Your task to perform on an android device: turn on the 24-hour format for clock Image 0: 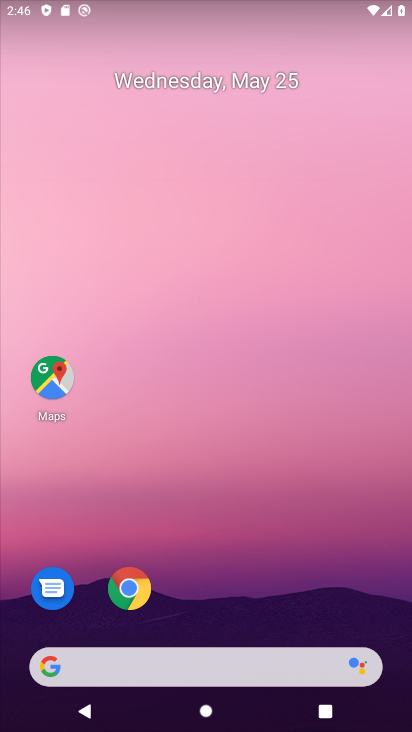
Step 0: press home button
Your task to perform on an android device: turn on the 24-hour format for clock Image 1: 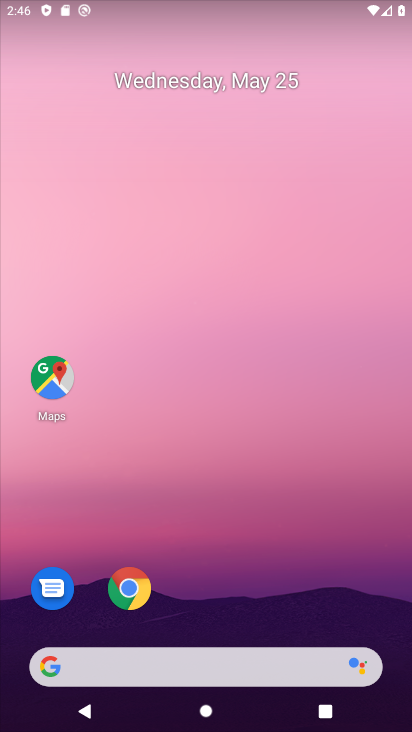
Step 1: drag from (235, 620) to (285, 6)
Your task to perform on an android device: turn on the 24-hour format for clock Image 2: 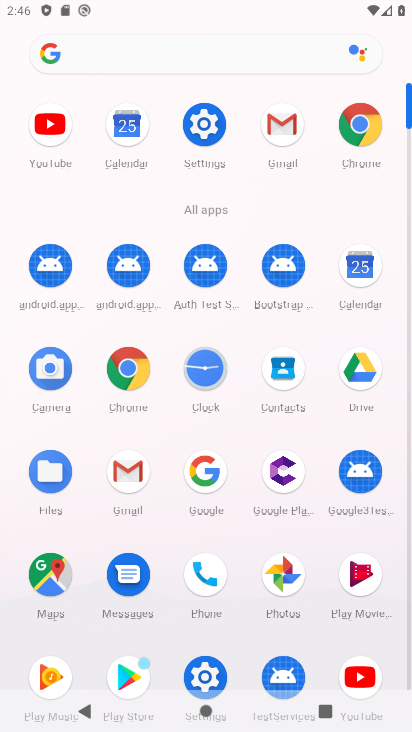
Step 2: click (198, 384)
Your task to perform on an android device: turn on the 24-hour format for clock Image 3: 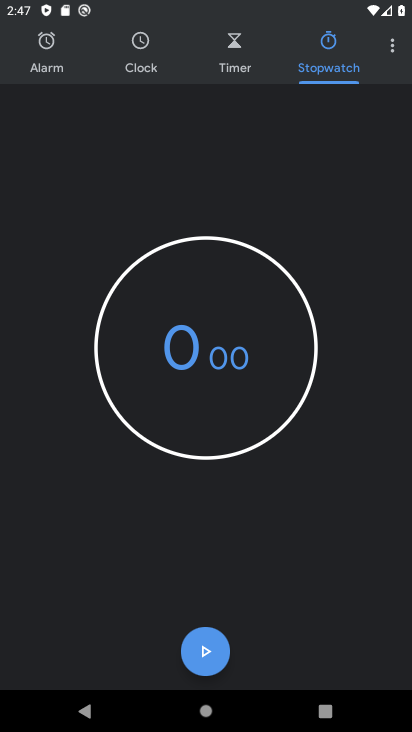
Step 3: click (393, 52)
Your task to perform on an android device: turn on the 24-hour format for clock Image 4: 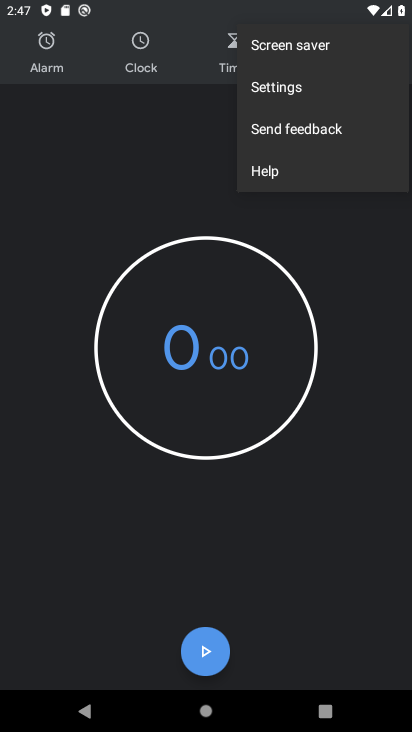
Step 4: click (281, 87)
Your task to perform on an android device: turn on the 24-hour format for clock Image 5: 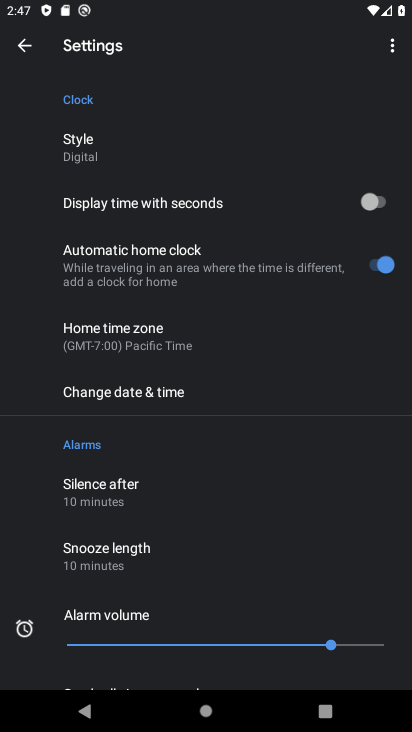
Step 5: click (105, 405)
Your task to perform on an android device: turn on the 24-hour format for clock Image 6: 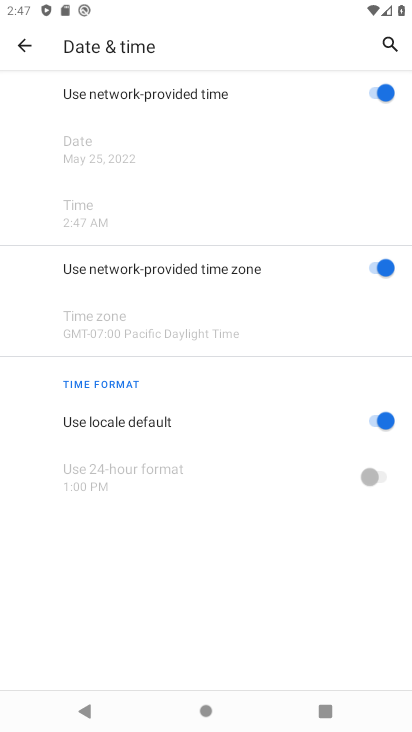
Step 6: click (367, 420)
Your task to perform on an android device: turn on the 24-hour format for clock Image 7: 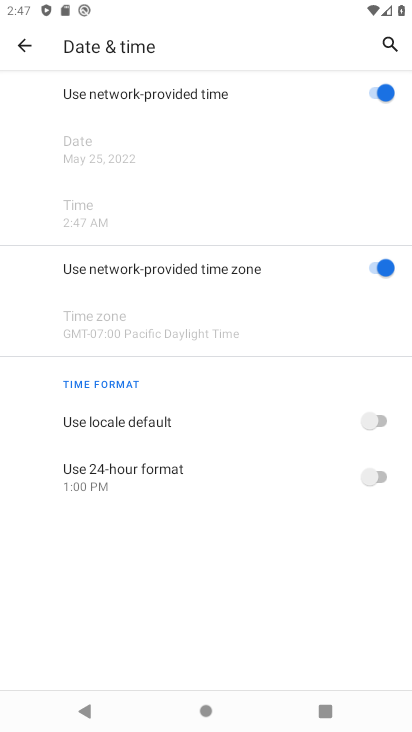
Step 7: click (363, 469)
Your task to perform on an android device: turn on the 24-hour format for clock Image 8: 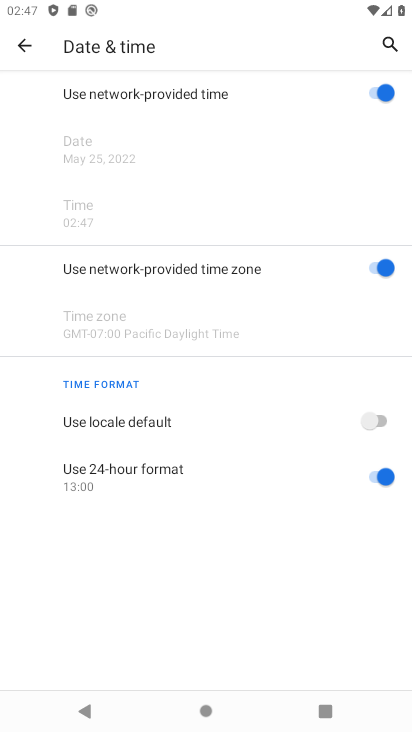
Step 8: task complete